Your task to perform on an android device: Open Yahoo.com Image 0: 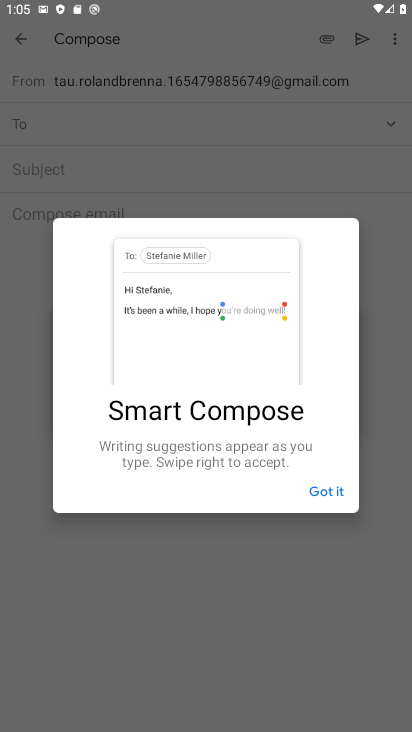
Step 0: press home button
Your task to perform on an android device: Open Yahoo.com Image 1: 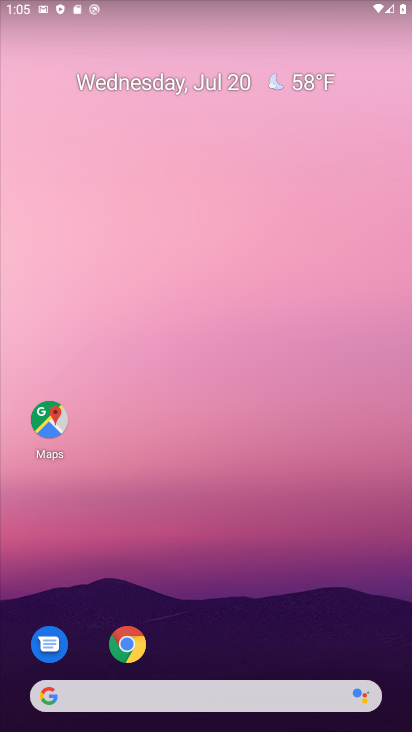
Step 1: click (128, 639)
Your task to perform on an android device: Open Yahoo.com Image 2: 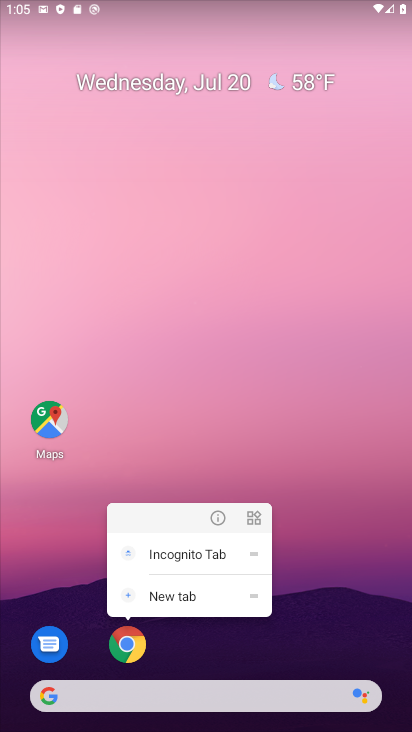
Step 2: click (128, 639)
Your task to perform on an android device: Open Yahoo.com Image 3: 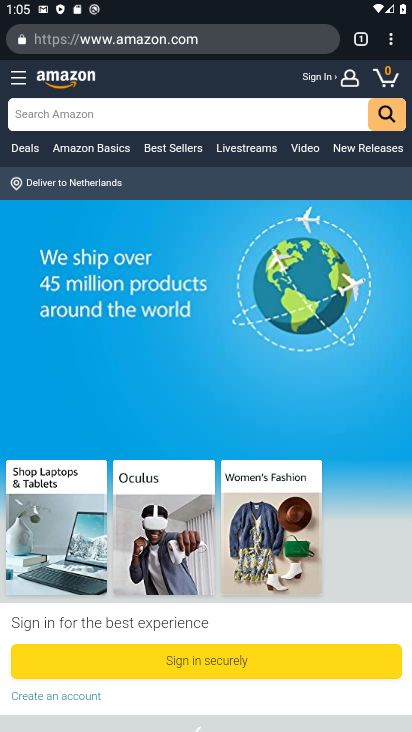
Step 3: click (361, 39)
Your task to perform on an android device: Open Yahoo.com Image 4: 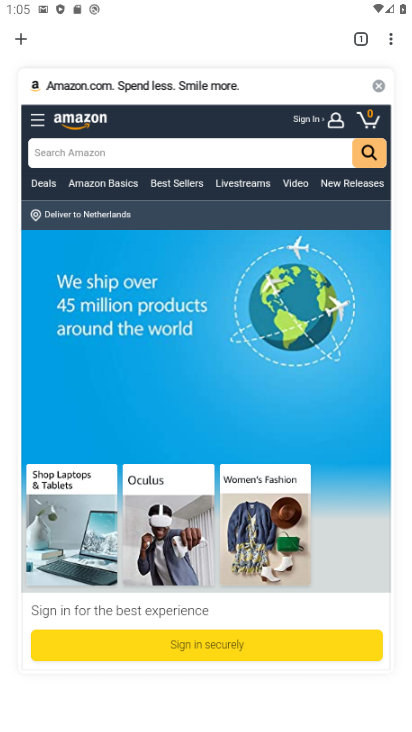
Step 4: click (21, 41)
Your task to perform on an android device: Open Yahoo.com Image 5: 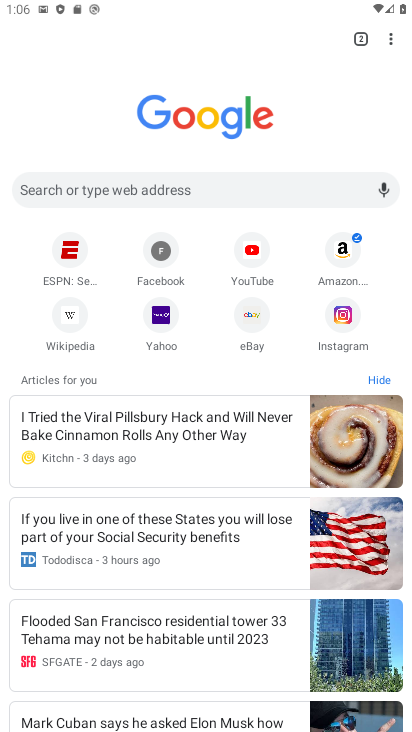
Step 5: click (163, 318)
Your task to perform on an android device: Open Yahoo.com Image 6: 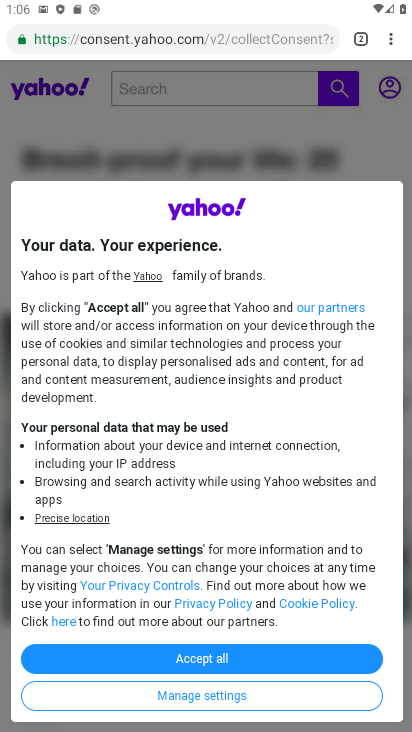
Step 6: task complete